Your task to perform on an android device: toggle priority inbox in the gmail app Image 0: 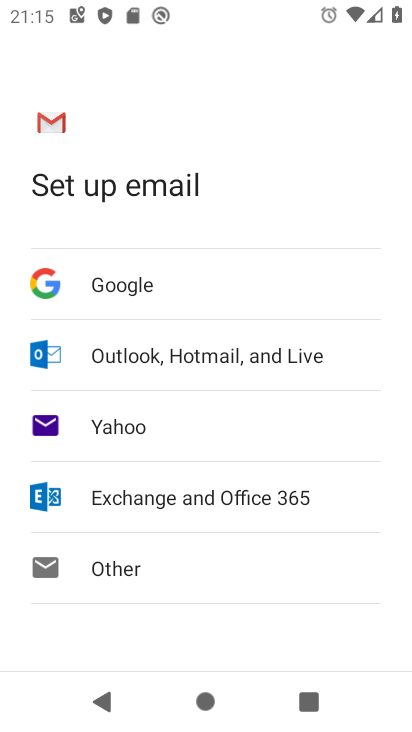
Step 0: press home button
Your task to perform on an android device: toggle priority inbox in the gmail app Image 1: 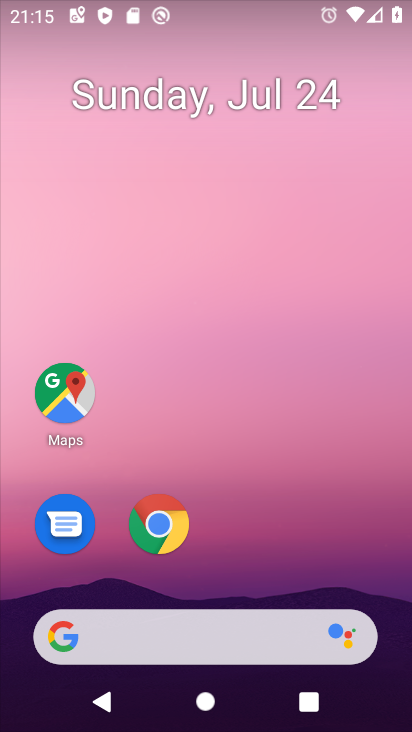
Step 1: drag from (272, 537) to (277, 13)
Your task to perform on an android device: toggle priority inbox in the gmail app Image 2: 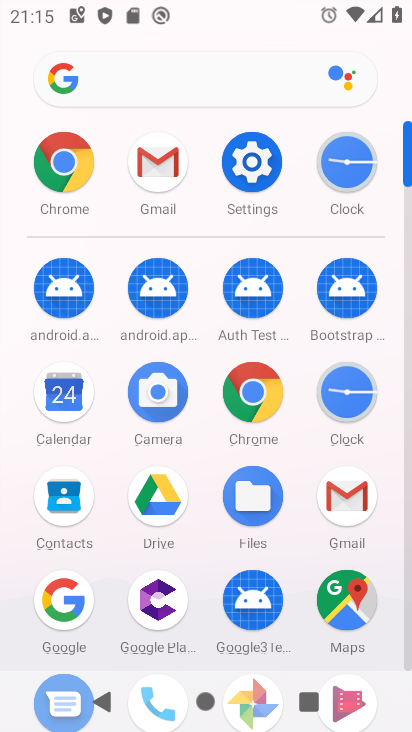
Step 2: click (168, 155)
Your task to perform on an android device: toggle priority inbox in the gmail app Image 3: 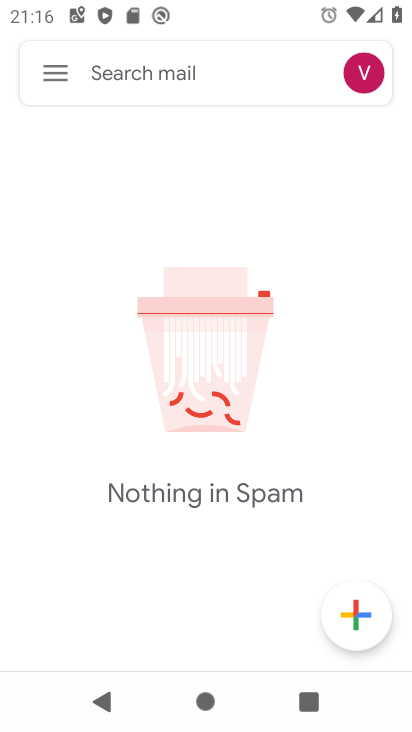
Step 3: click (60, 72)
Your task to perform on an android device: toggle priority inbox in the gmail app Image 4: 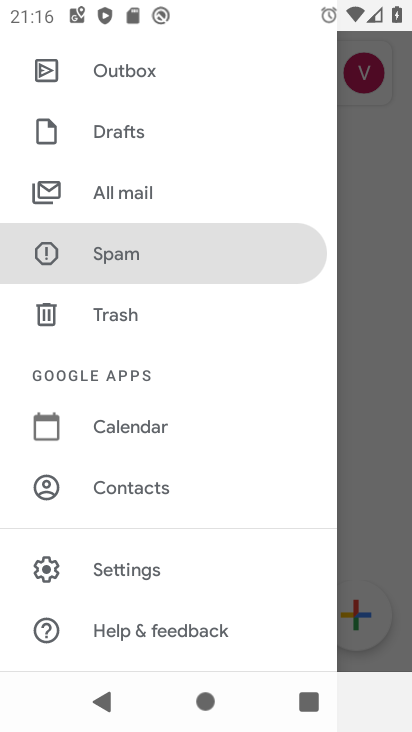
Step 4: click (143, 560)
Your task to perform on an android device: toggle priority inbox in the gmail app Image 5: 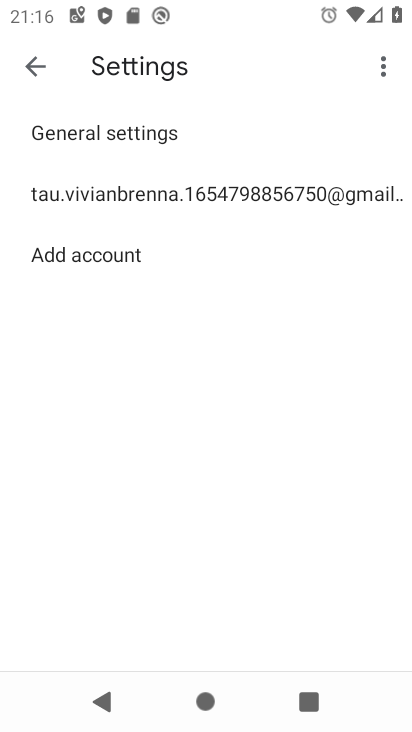
Step 5: click (220, 183)
Your task to perform on an android device: toggle priority inbox in the gmail app Image 6: 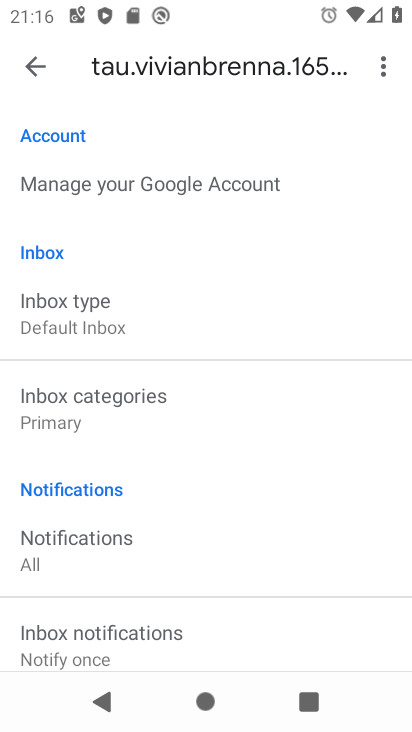
Step 6: click (96, 317)
Your task to perform on an android device: toggle priority inbox in the gmail app Image 7: 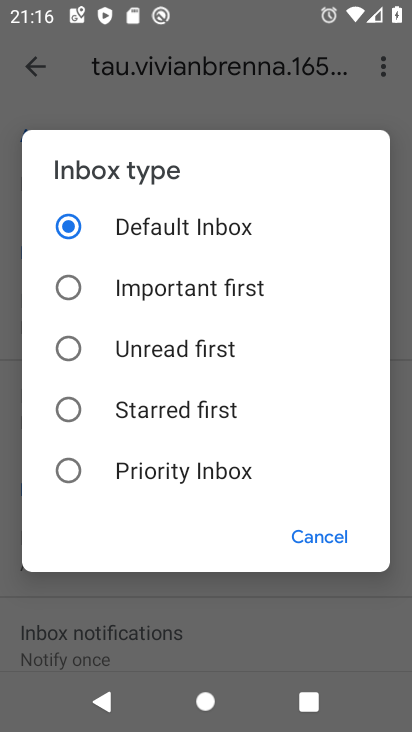
Step 7: click (68, 467)
Your task to perform on an android device: toggle priority inbox in the gmail app Image 8: 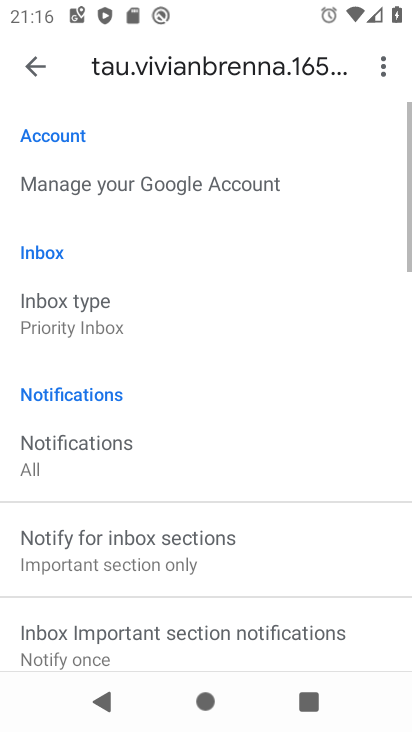
Step 8: task complete